Your task to perform on an android device: Go to settings Image 0: 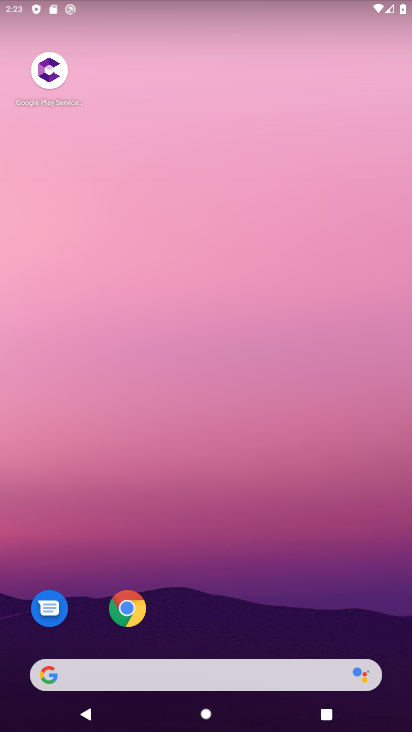
Step 0: drag from (237, 647) to (295, 40)
Your task to perform on an android device: Go to settings Image 1: 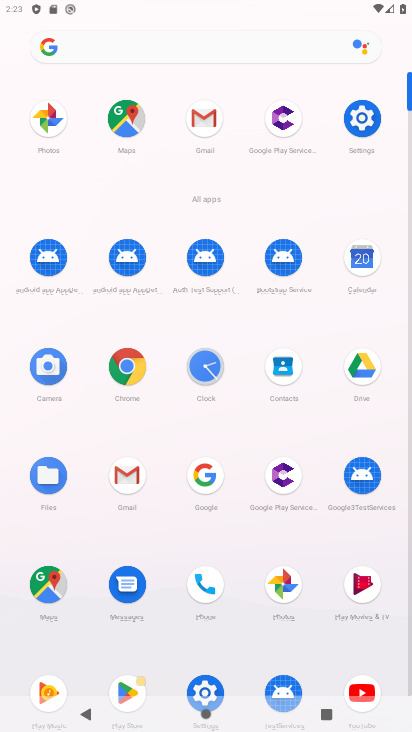
Step 1: click (206, 687)
Your task to perform on an android device: Go to settings Image 2: 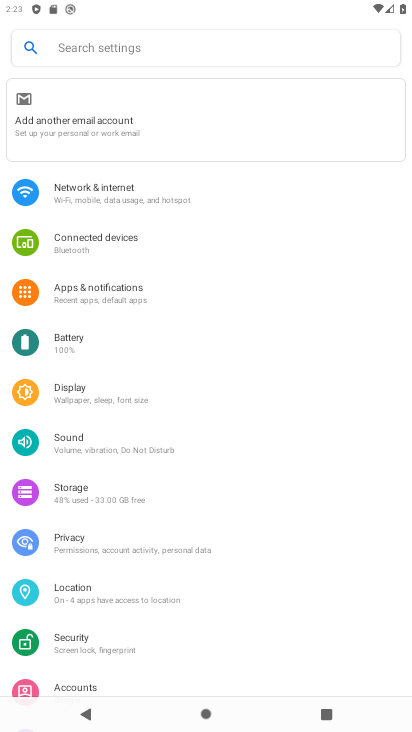
Step 2: task complete